Your task to perform on an android device: check out phone information Image 0: 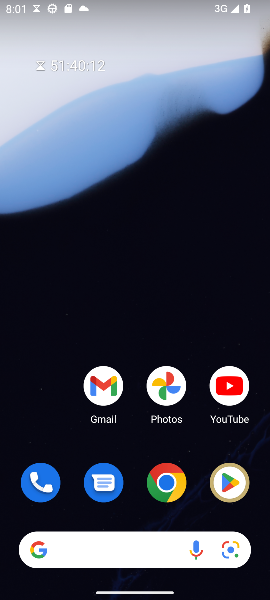
Step 0: drag from (151, 529) to (113, 1)
Your task to perform on an android device: check out phone information Image 1: 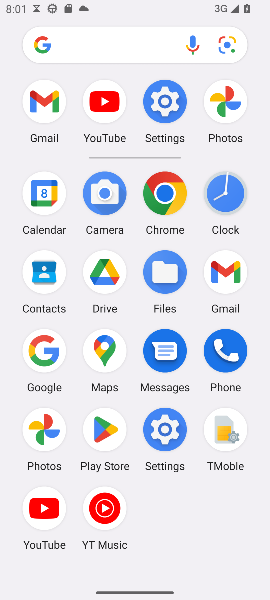
Step 1: click (161, 80)
Your task to perform on an android device: check out phone information Image 2: 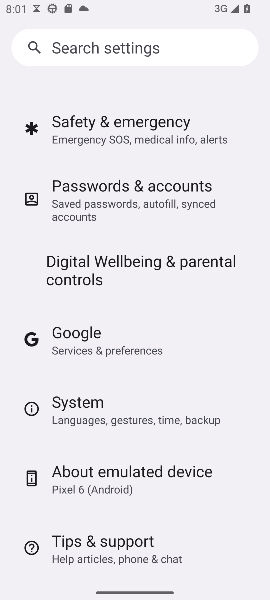
Step 2: drag from (88, 544) to (104, 80)
Your task to perform on an android device: check out phone information Image 3: 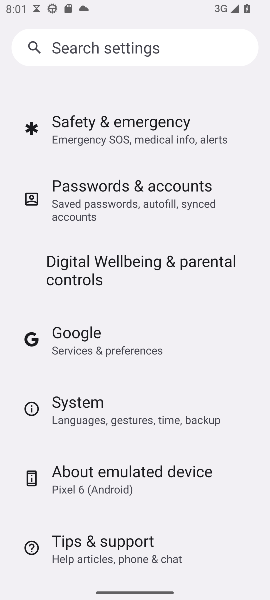
Step 3: drag from (127, 423) to (100, 175)
Your task to perform on an android device: check out phone information Image 4: 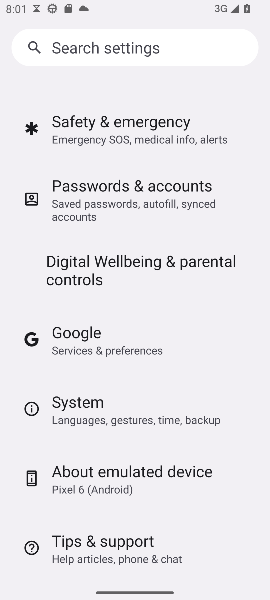
Step 4: drag from (93, 440) to (122, 108)
Your task to perform on an android device: check out phone information Image 5: 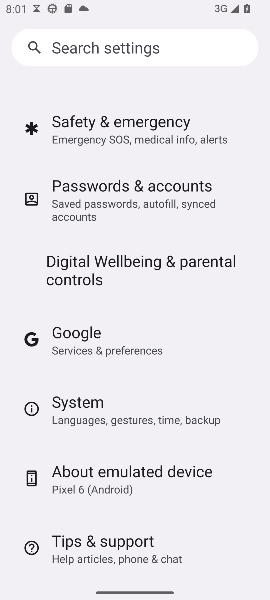
Step 5: drag from (116, 419) to (126, 112)
Your task to perform on an android device: check out phone information Image 6: 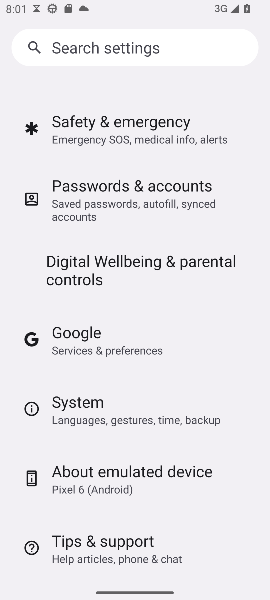
Step 6: drag from (137, 536) to (116, 187)
Your task to perform on an android device: check out phone information Image 7: 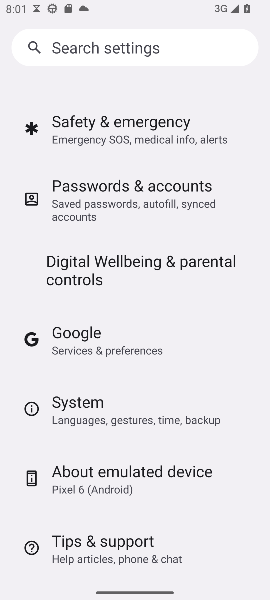
Step 7: click (104, 491)
Your task to perform on an android device: check out phone information Image 8: 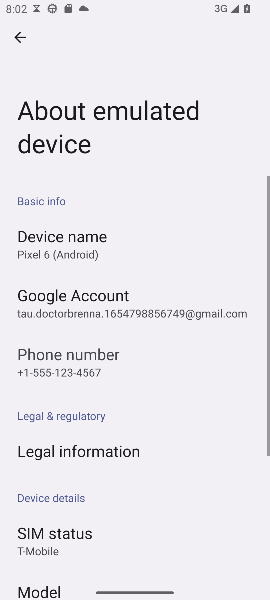
Step 8: task complete